Your task to perform on an android device: delete browsing data in the chrome app Image 0: 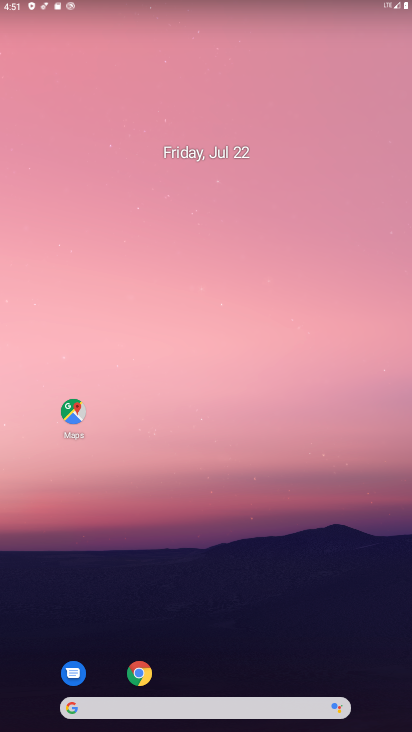
Step 0: click (147, 669)
Your task to perform on an android device: delete browsing data in the chrome app Image 1: 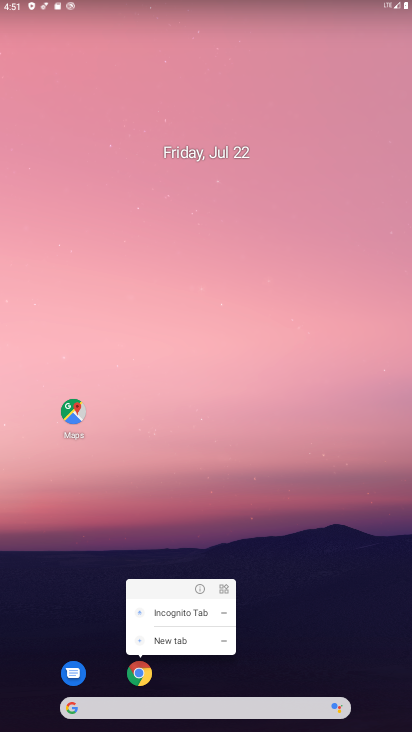
Step 1: click (140, 686)
Your task to perform on an android device: delete browsing data in the chrome app Image 2: 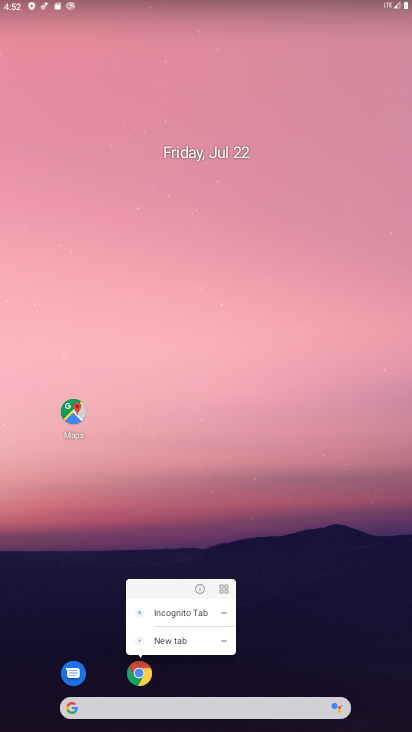
Step 2: click (139, 679)
Your task to perform on an android device: delete browsing data in the chrome app Image 3: 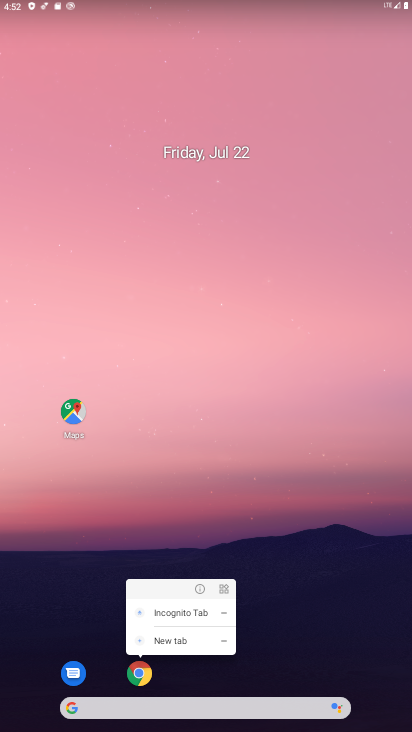
Step 3: click (139, 679)
Your task to perform on an android device: delete browsing data in the chrome app Image 4: 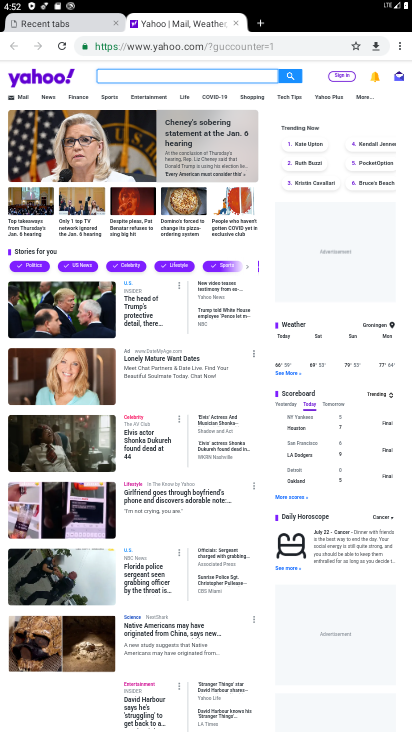
Step 4: drag from (398, 49) to (313, 302)
Your task to perform on an android device: delete browsing data in the chrome app Image 5: 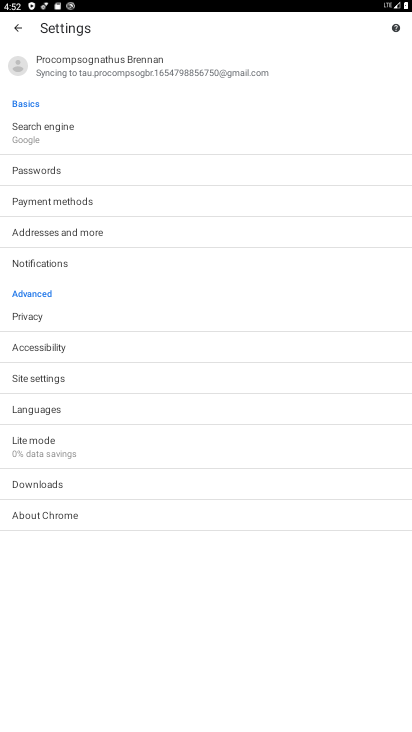
Step 5: click (8, 315)
Your task to perform on an android device: delete browsing data in the chrome app Image 6: 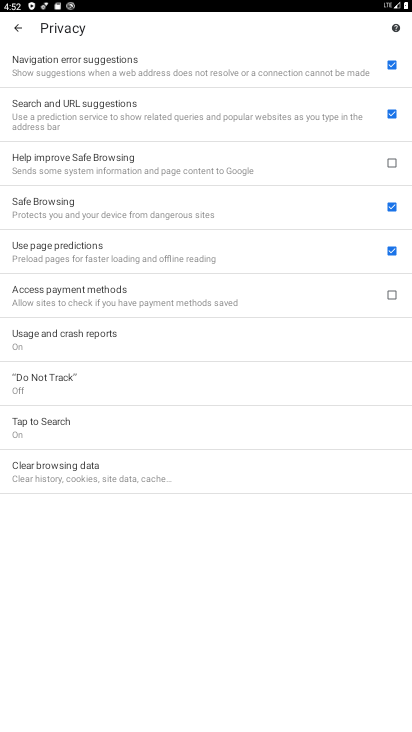
Step 6: click (62, 470)
Your task to perform on an android device: delete browsing data in the chrome app Image 7: 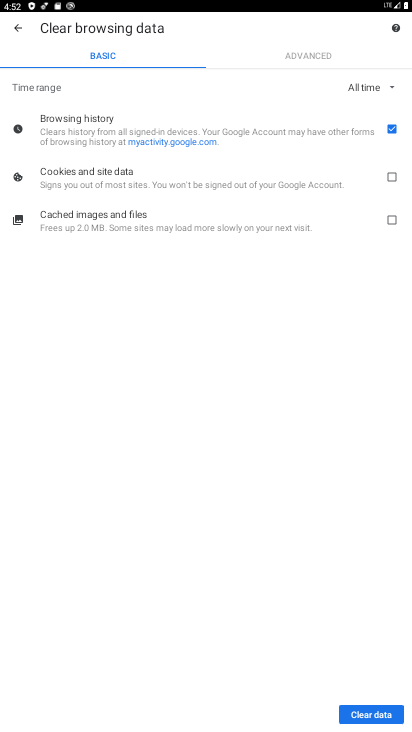
Step 7: click (380, 708)
Your task to perform on an android device: delete browsing data in the chrome app Image 8: 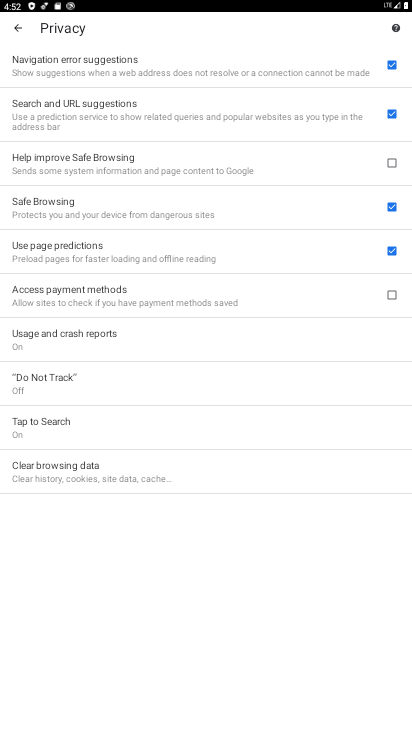
Step 8: task complete